Your task to perform on an android device: turn pop-ups off in chrome Image 0: 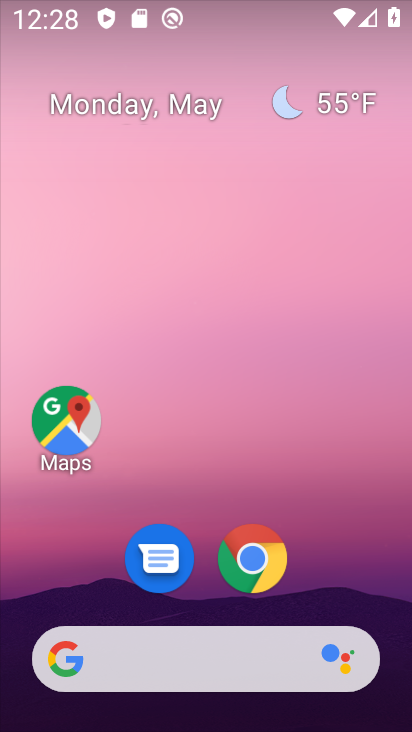
Step 0: drag from (370, 554) to (188, 35)
Your task to perform on an android device: turn pop-ups off in chrome Image 1: 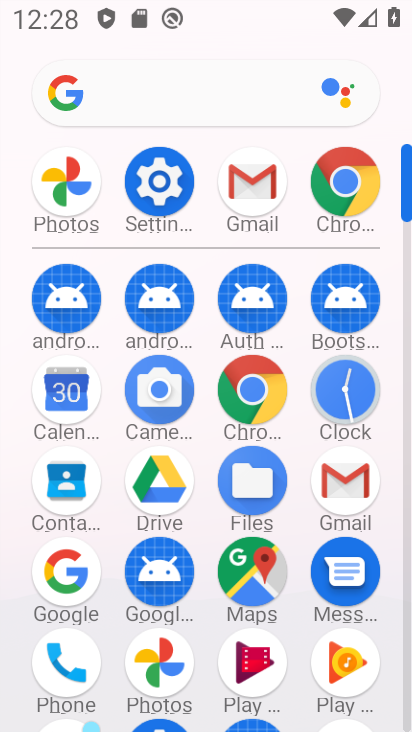
Step 1: drag from (11, 594) to (11, 269)
Your task to perform on an android device: turn pop-ups off in chrome Image 2: 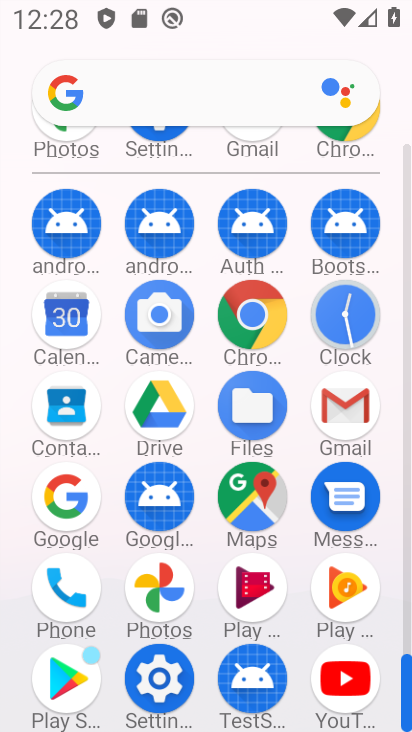
Step 2: click (249, 313)
Your task to perform on an android device: turn pop-ups off in chrome Image 3: 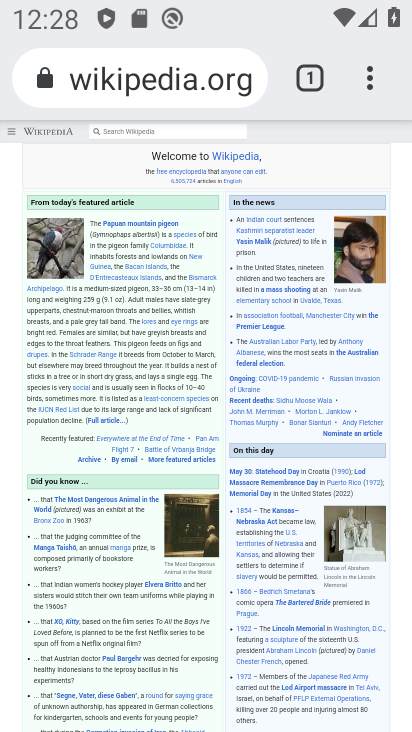
Step 3: drag from (364, 83) to (166, 614)
Your task to perform on an android device: turn pop-ups off in chrome Image 4: 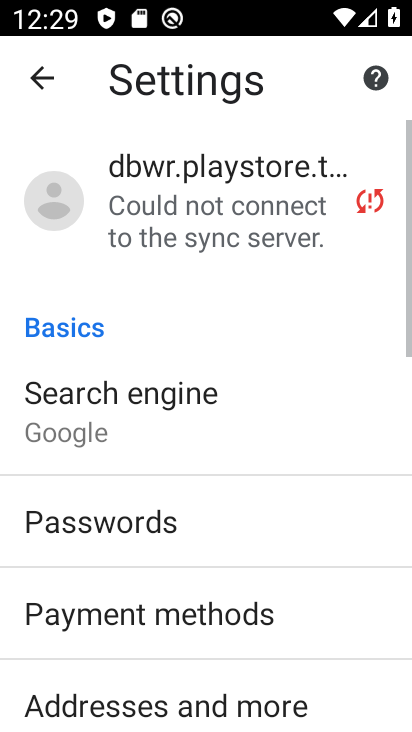
Step 4: drag from (238, 554) to (217, 213)
Your task to perform on an android device: turn pop-ups off in chrome Image 5: 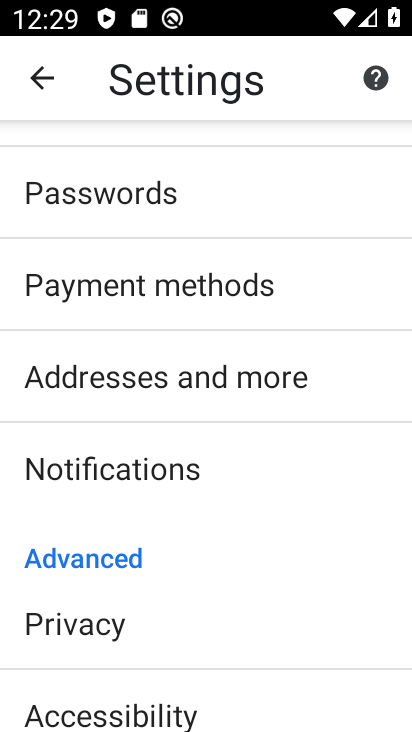
Step 5: drag from (245, 643) to (260, 191)
Your task to perform on an android device: turn pop-ups off in chrome Image 6: 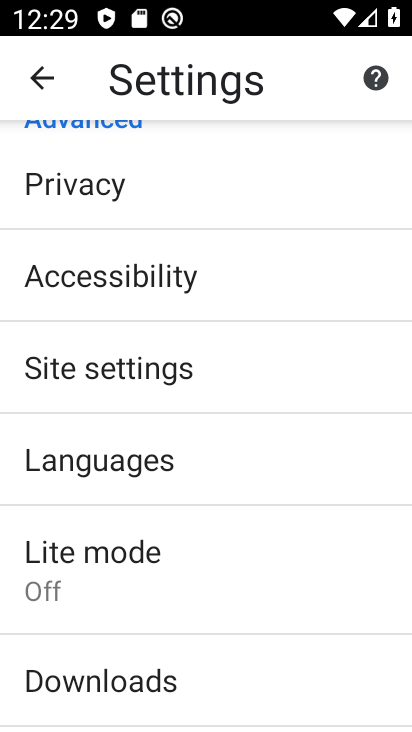
Step 6: click (178, 355)
Your task to perform on an android device: turn pop-ups off in chrome Image 7: 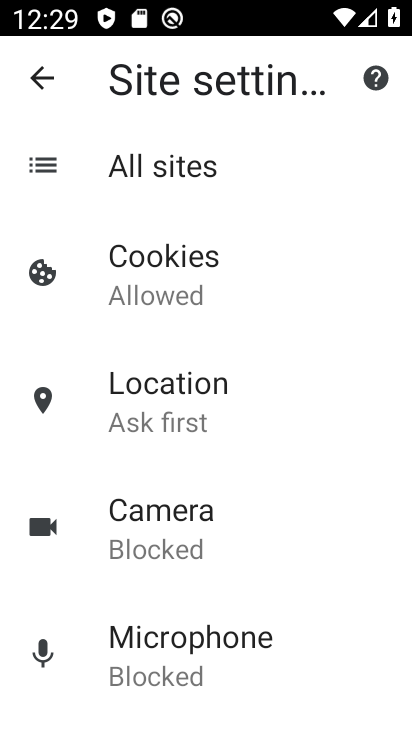
Step 7: drag from (212, 637) to (241, 209)
Your task to perform on an android device: turn pop-ups off in chrome Image 8: 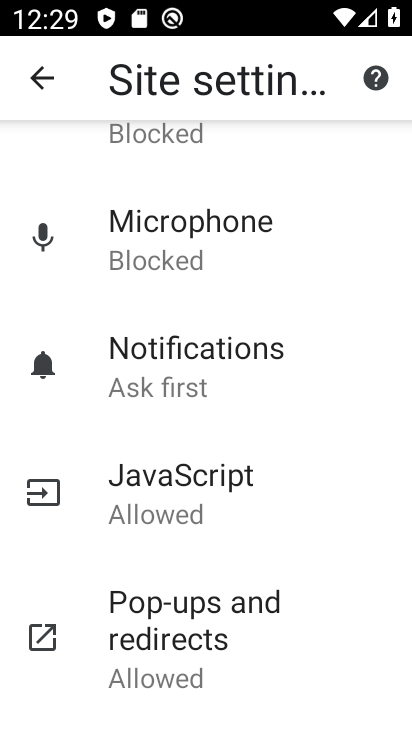
Step 8: click (247, 628)
Your task to perform on an android device: turn pop-ups off in chrome Image 9: 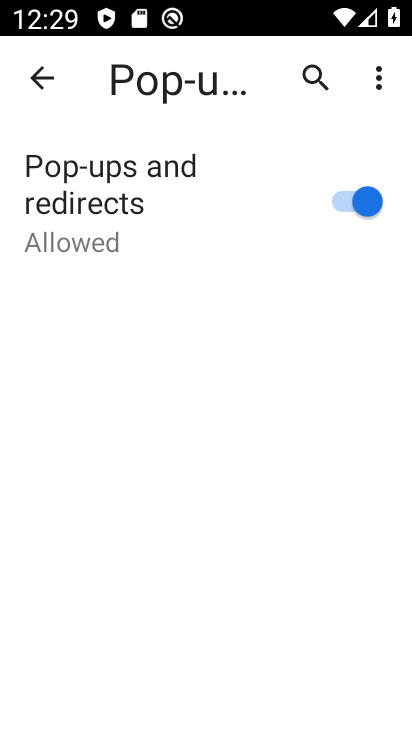
Step 9: click (353, 208)
Your task to perform on an android device: turn pop-ups off in chrome Image 10: 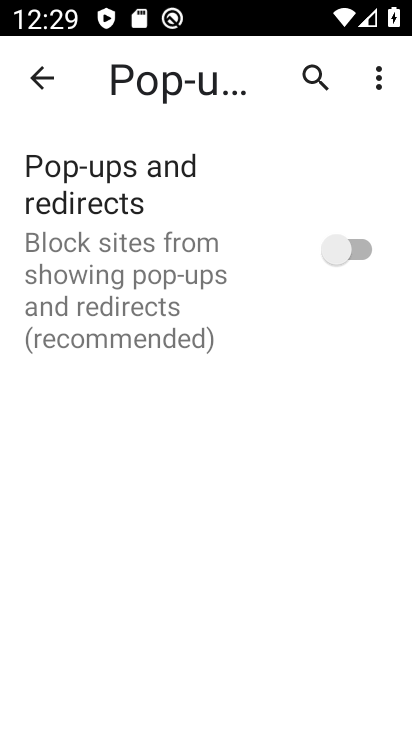
Step 10: task complete